Your task to perform on an android device: Open ESPN.com Image 0: 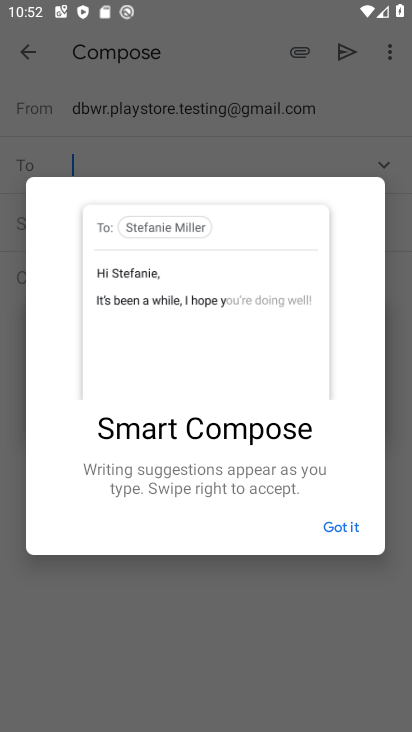
Step 0: press back button
Your task to perform on an android device: Open ESPN.com Image 1: 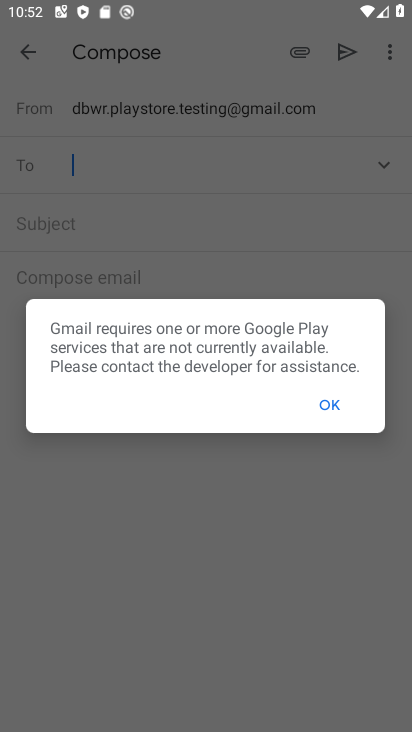
Step 1: press home button
Your task to perform on an android device: Open ESPN.com Image 2: 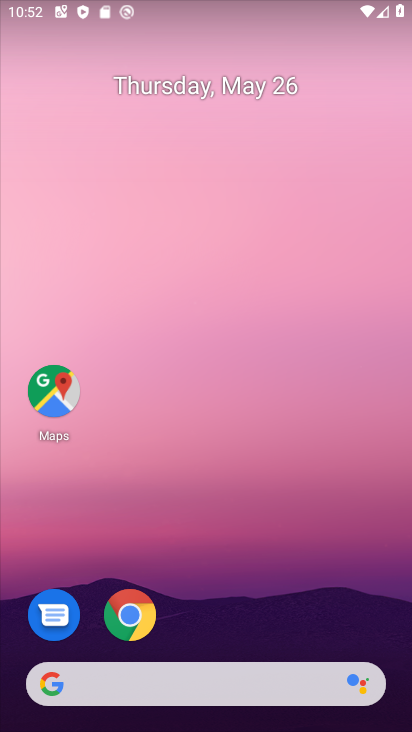
Step 2: click (131, 605)
Your task to perform on an android device: Open ESPN.com Image 3: 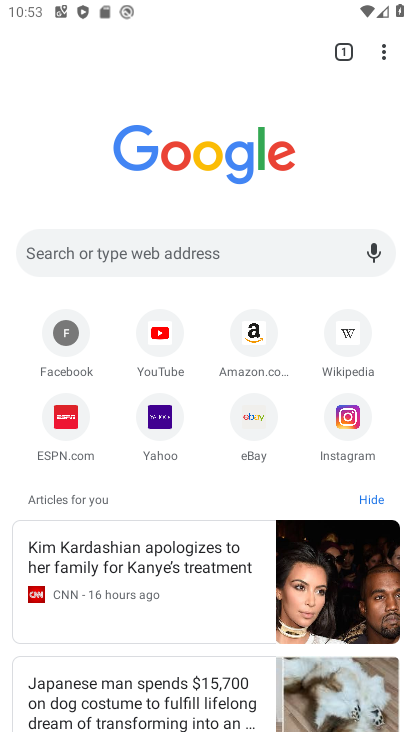
Step 3: click (73, 423)
Your task to perform on an android device: Open ESPN.com Image 4: 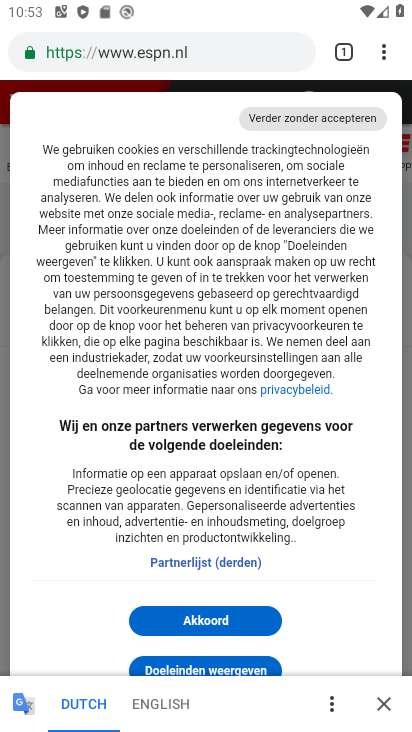
Step 4: task complete